Your task to perform on an android device: Open settings on Google Maps Image 0: 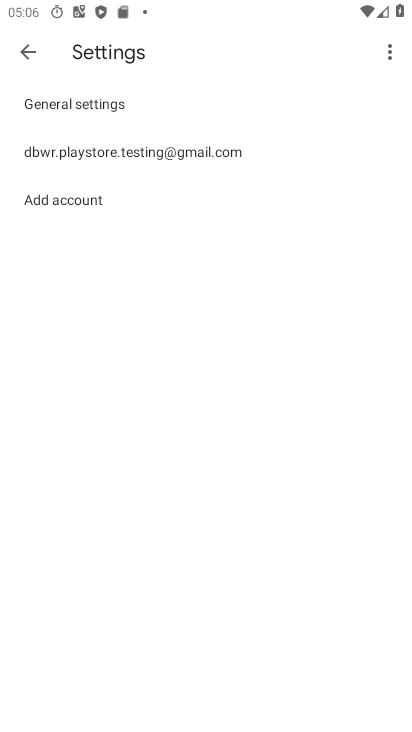
Step 0: press back button
Your task to perform on an android device: Open settings on Google Maps Image 1: 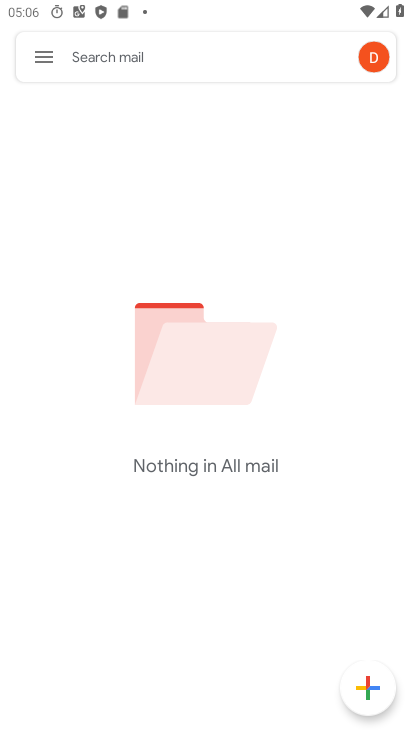
Step 1: drag from (338, 586) to (243, 117)
Your task to perform on an android device: Open settings on Google Maps Image 2: 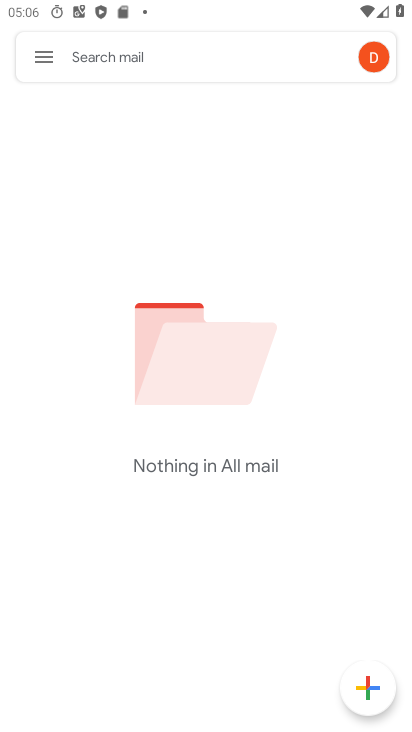
Step 2: drag from (303, 641) to (227, 92)
Your task to perform on an android device: Open settings on Google Maps Image 3: 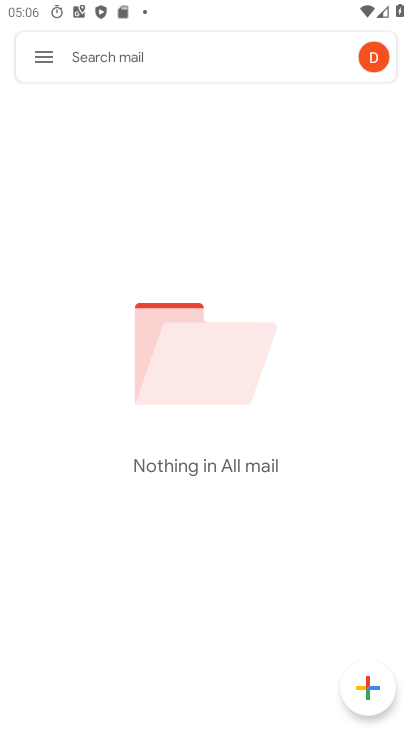
Step 3: drag from (280, 496) to (260, 19)
Your task to perform on an android device: Open settings on Google Maps Image 4: 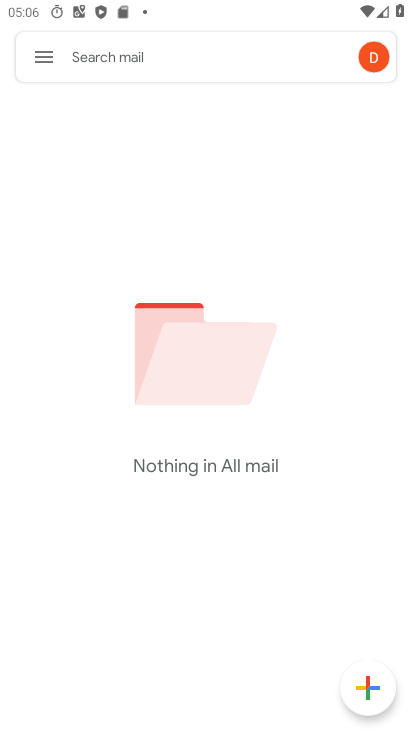
Step 4: drag from (239, 502) to (285, 1)
Your task to perform on an android device: Open settings on Google Maps Image 5: 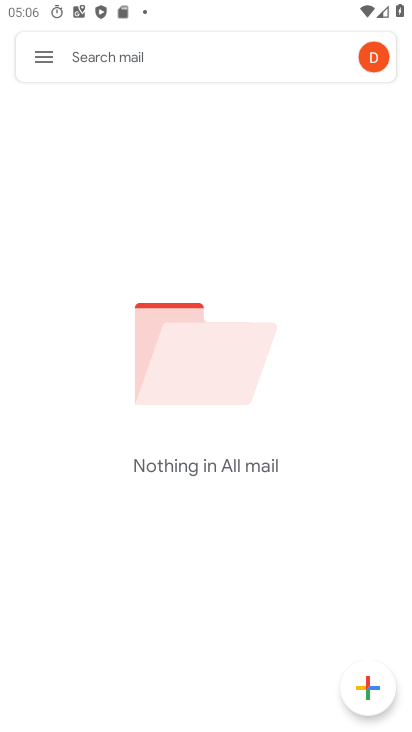
Step 5: press home button
Your task to perform on an android device: Open settings on Google Maps Image 6: 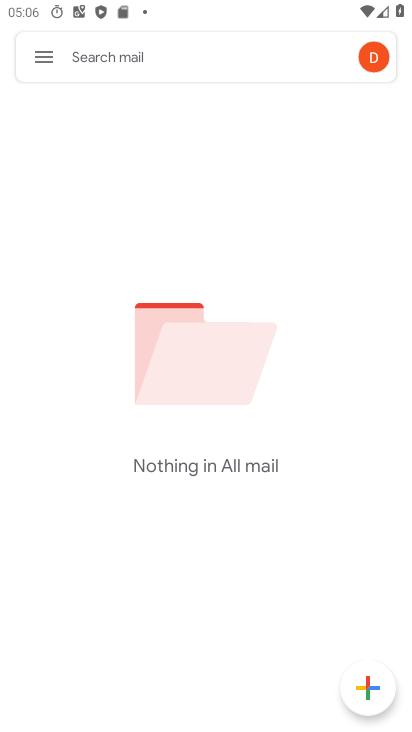
Step 6: press home button
Your task to perform on an android device: Open settings on Google Maps Image 7: 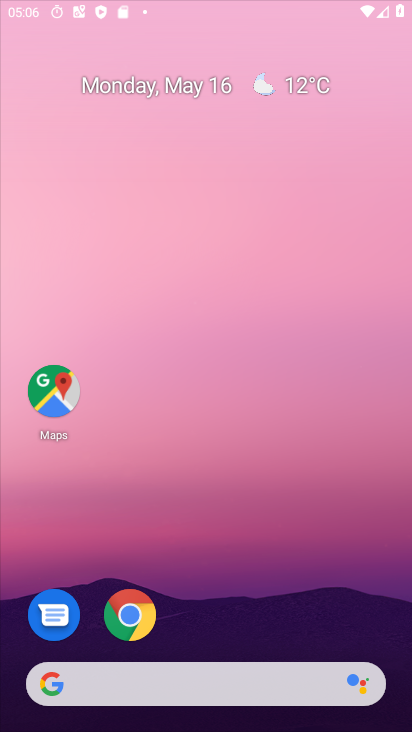
Step 7: press home button
Your task to perform on an android device: Open settings on Google Maps Image 8: 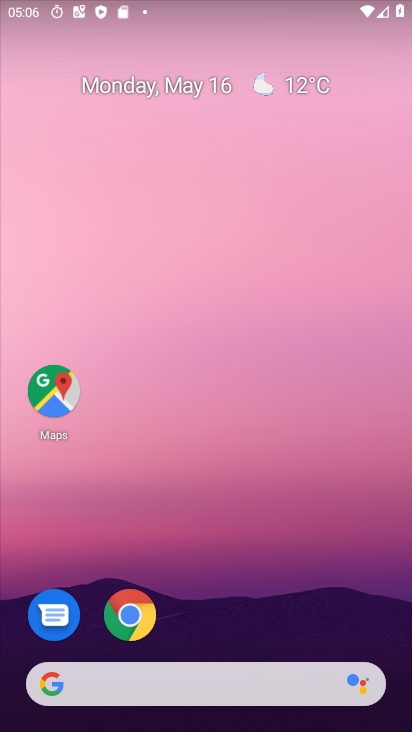
Step 8: press home button
Your task to perform on an android device: Open settings on Google Maps Image 9: 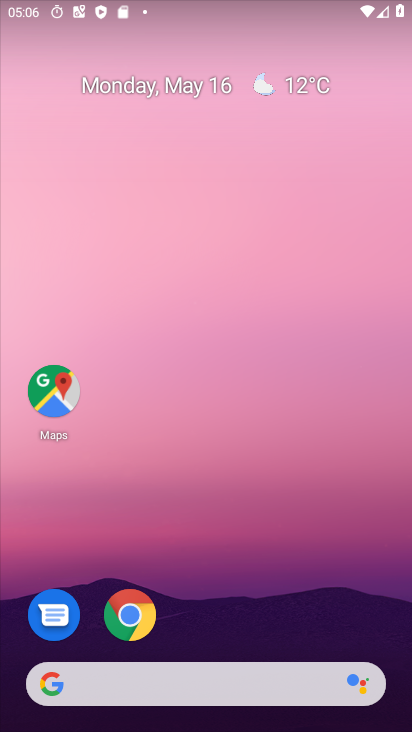
Step 9: drag from (247, 661) to (98, 40)
Your task to perform on an android device: Open settings on Google Maps Image 10: 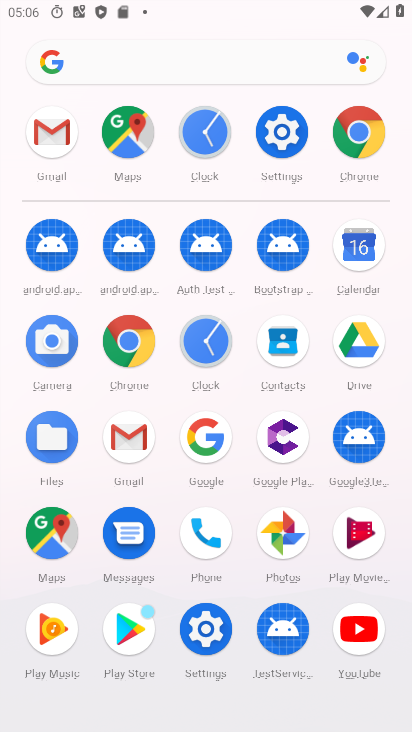
Step 10: click (51, 540)
Your task to perform on an android device: Open settings on Google Maps Image 11: 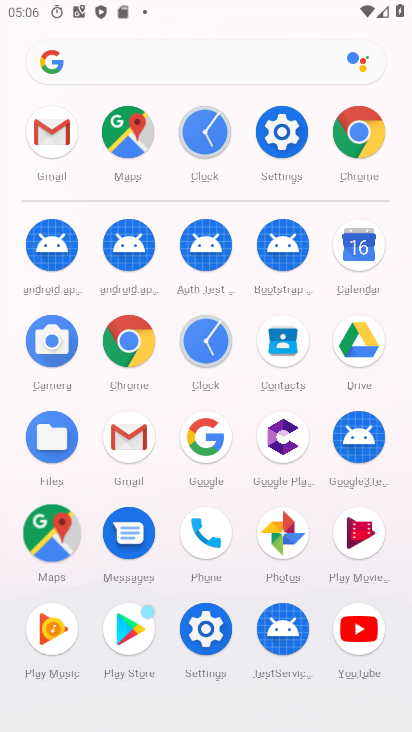
Step 11: click (51, 540)
Your task to perform on an android device: Open settings on Google Maps Image 12: 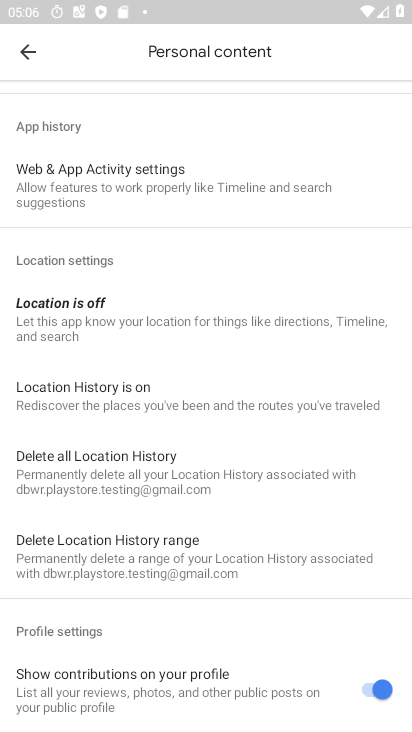
Step 12: task complete